Your task to perform on an android device: turn notification dots on Image 0: 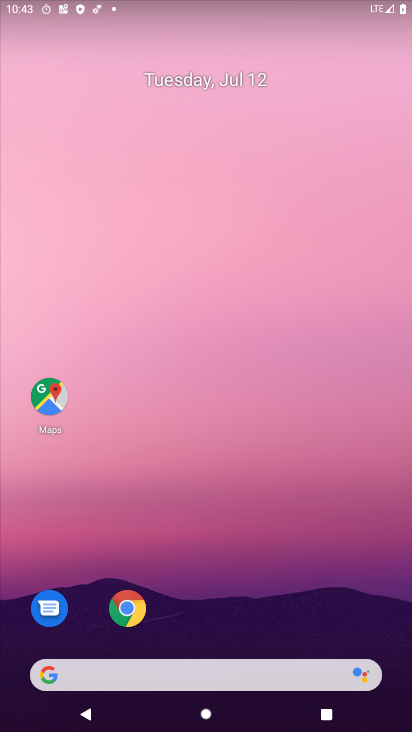
Step 0: drag from (276, 612) to (373, 1)
Your task to perform on an android device: turn notification dots on Image 1: 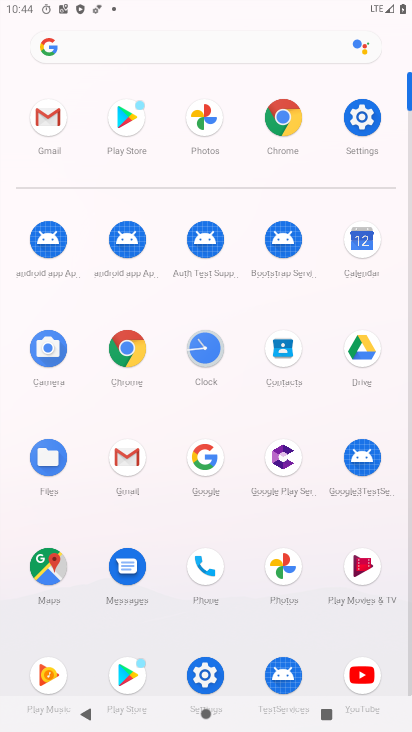
Step 1: click (358, 121)
Your task to perform on an android device: turn notification dots on Image 2: 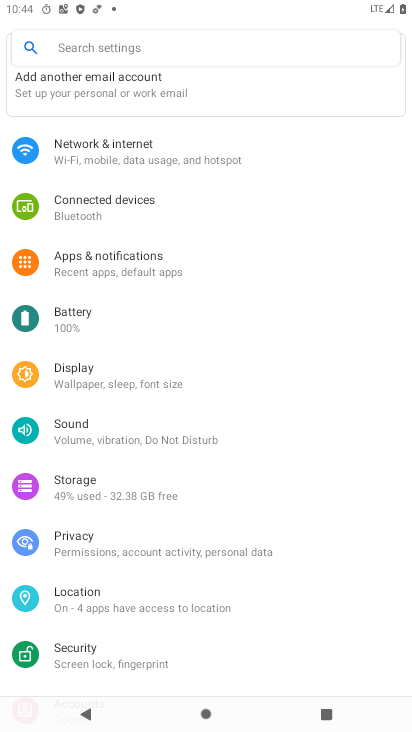
Step 2: click (156, 269)
Your task to perform on an android device: turn notification dots on Image 3: 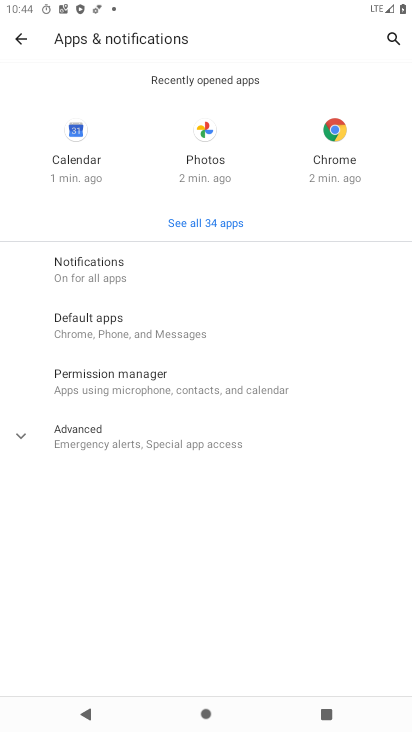
Step 3: click (189, 267)
Your task to perform on an android device: turn notification dots on Image 4: 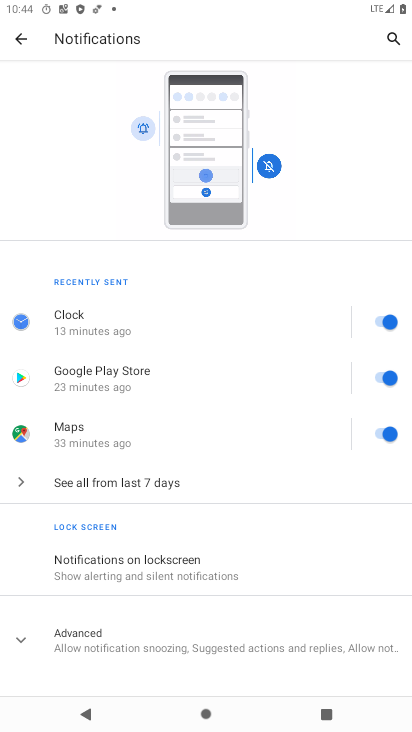
Step 4: click (145, 627)
Your task to perform on an android device: turn notification dots on Image 5: 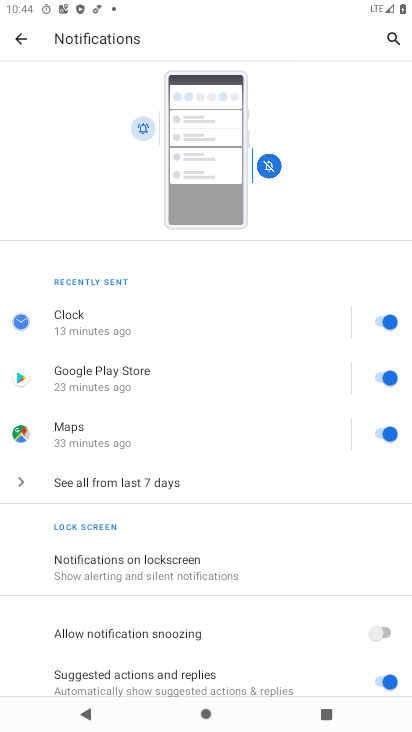
Step 5: task complete